Your task to perform on an android device: Go to Maps Image 0: 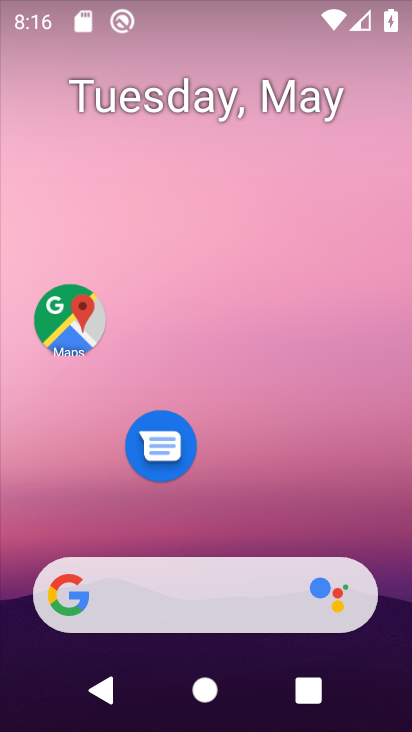
Step 0: click (83, 328)
Your task to perform on an android device: Go to Maps Image 1: 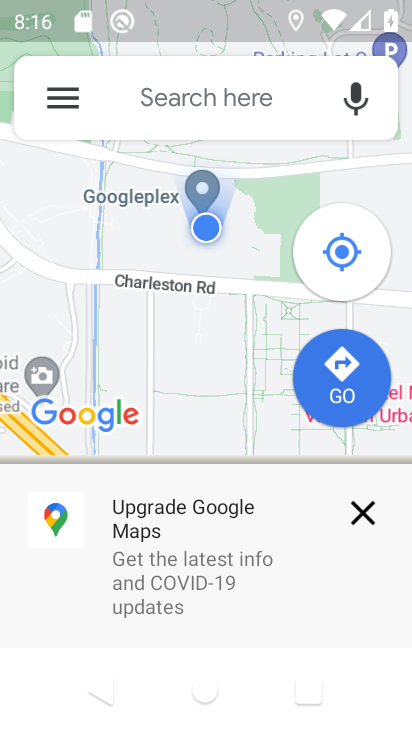
Step 1: click (363, 505)
Your task to perform on an android device: Go to Maps Image 2: 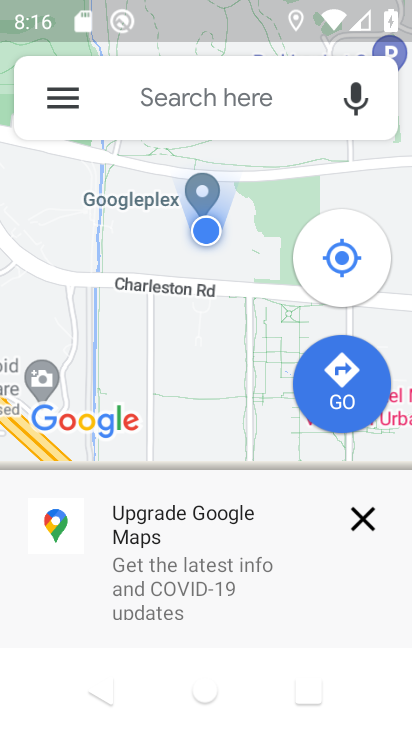
Step 2: task complete